Your task to perform on an android device: see creations saved in the google photos Image 0: 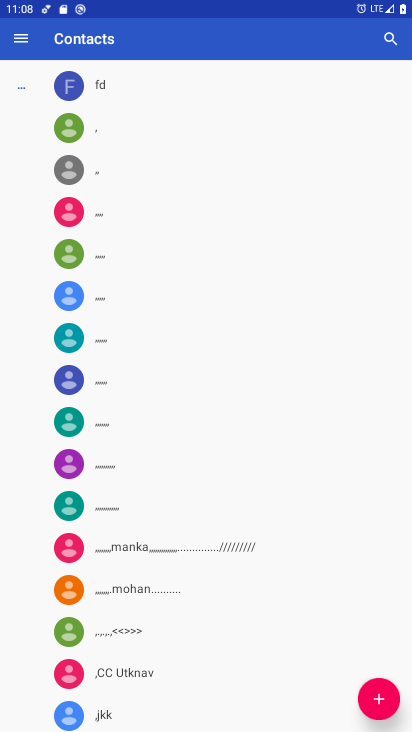
Step 0: press home button
Your task to perform on an android device: see creations saved in the google photos Image 1: 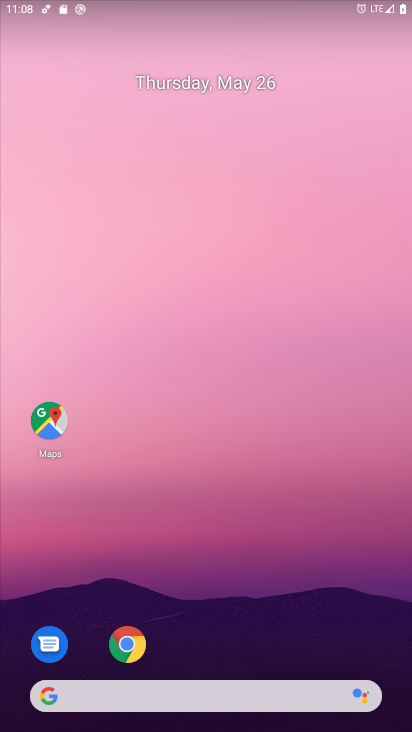
Step 1: drag from (362, 598) to (376, 259)
Your task to perform on an android device: see creations saved in the google photos Image 2: 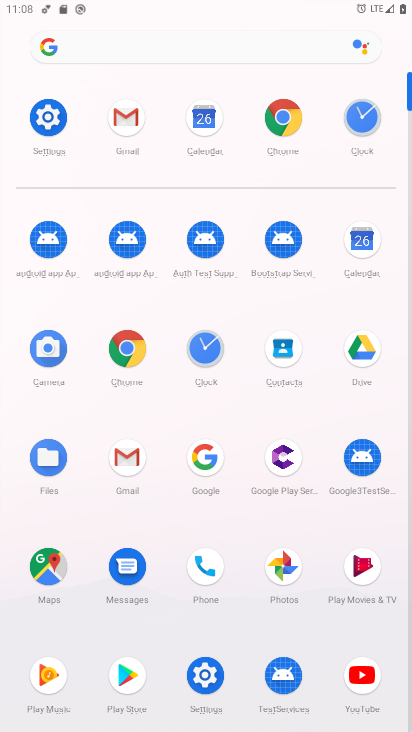
Step 2: click (279, 572)
Your task to perform on an android device: see creations saved in the google photos Image 3: 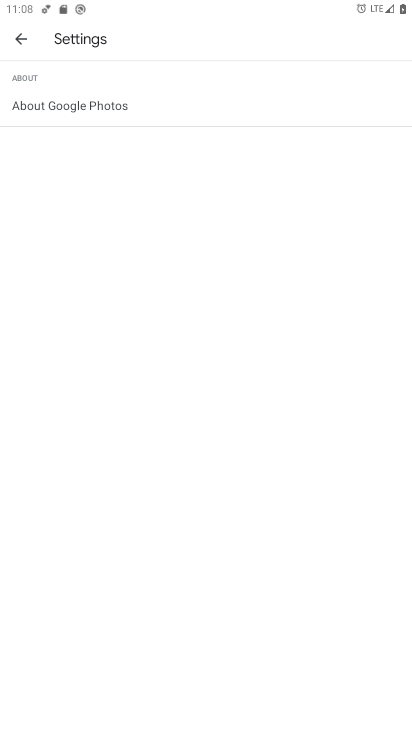
Step 3: click (23, 41)
Your task to perform on an android device: see creations saved in the google photos Image 4: 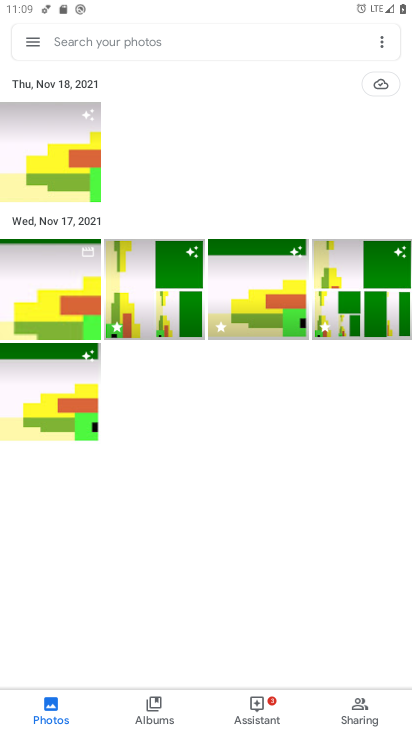
Step 4: click (131, 44)
Your task to perform on an android device: see creations saved in the google photos Image 5: 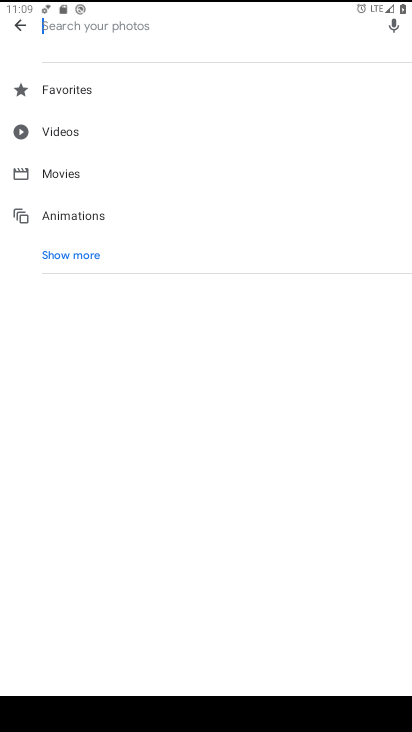
Step 5: click (77, 261)
Your task to perform on an android device: see creations saved in the google photos Image 6: 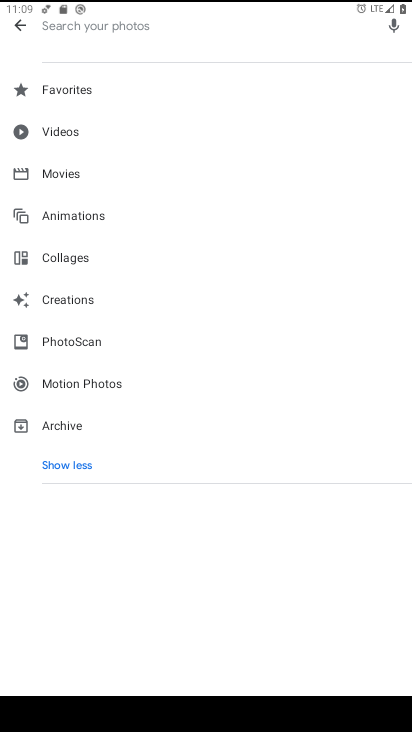
Step 6: click (96, 303)
Your task to perform on an android device: see creations saved in the google photos Image 7: 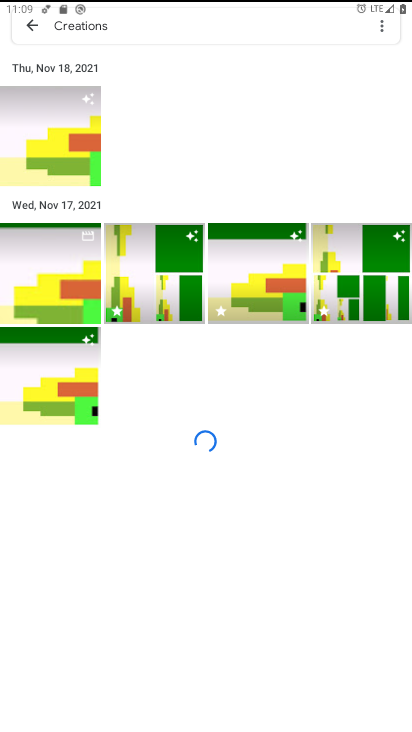
Step 7: task complete